Your task to perform on an android device: create a new album in the google photos Image 0: 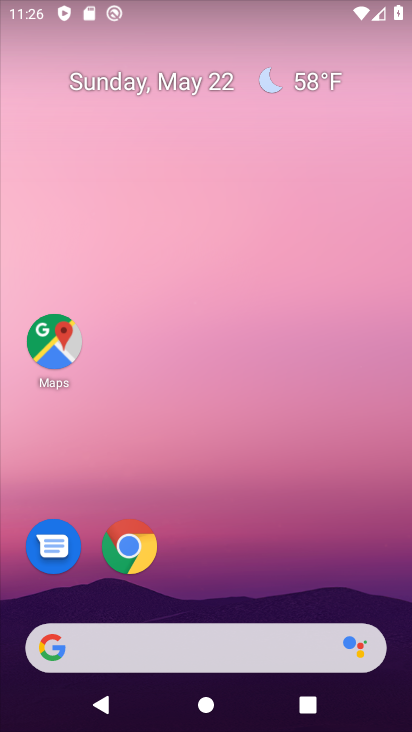
Step 0: drag from (389, 620) to (307, 126)
Your task to perform on an android device: create a new album in the google photos Image 1: 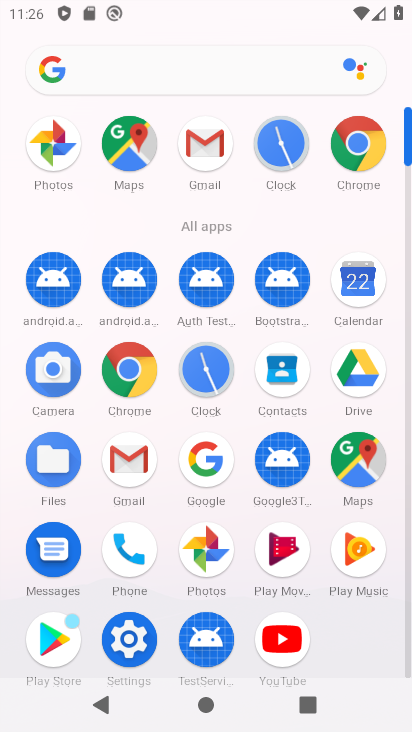
Step 1: click (206, 547)
Your task to perform on an android device: create a new album in the google photos Image 2: 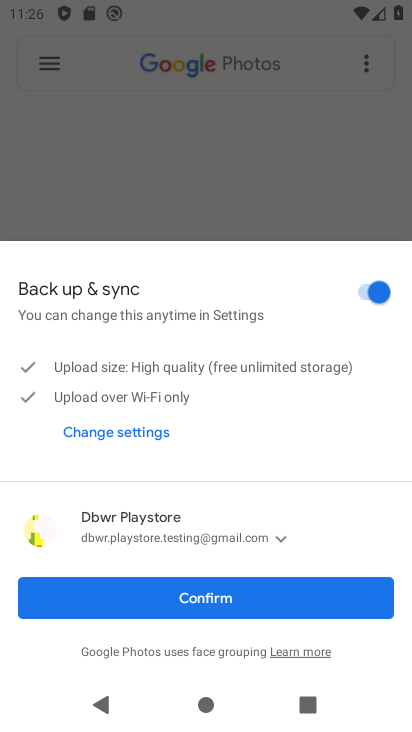
Step 2: click (205, 603)
Your task to perform on an android device: create a new album in the google photos Image 3: 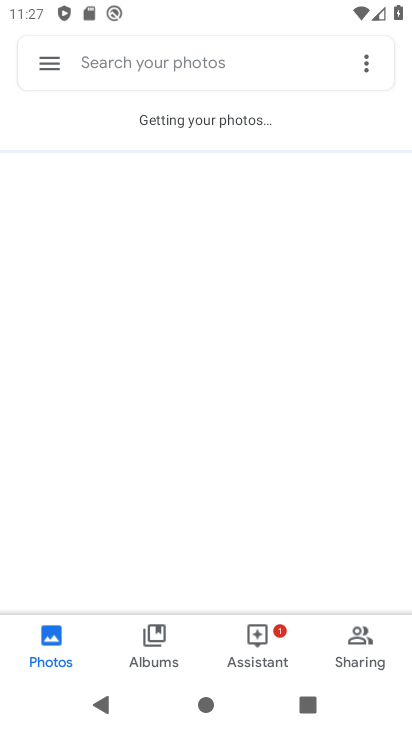
Step 3: click (156, 642)
Your task to perform on an android device: create a new album in the google photos Image 4: 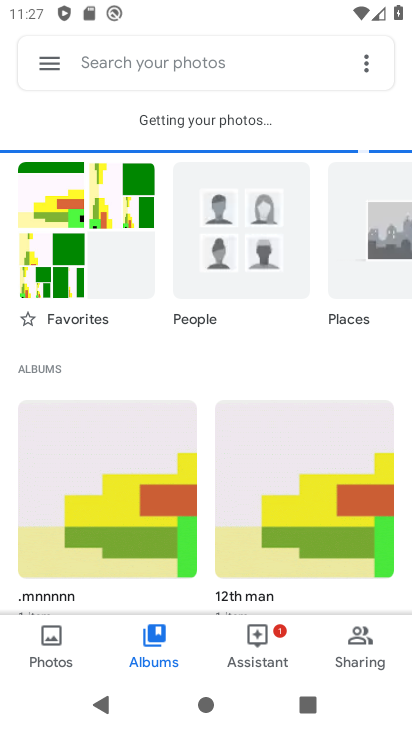
Step 4: task complete